Your task to perform on an android device: turn off smart reply in the gmail app Image 0: 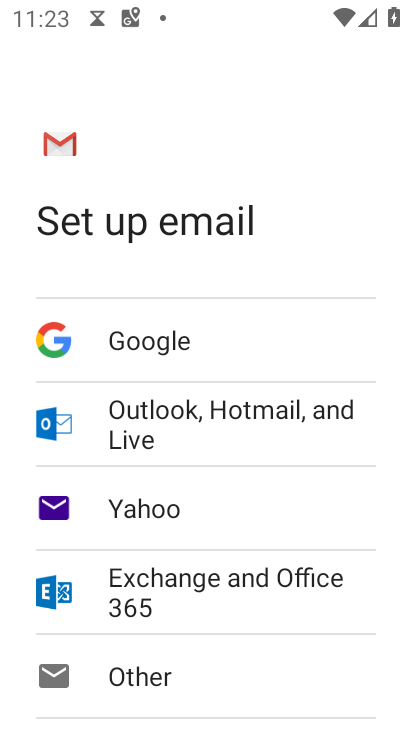
Step 0: press home button
Your task to perform on an android device: turn off smart reply in the gmail app Image 1: 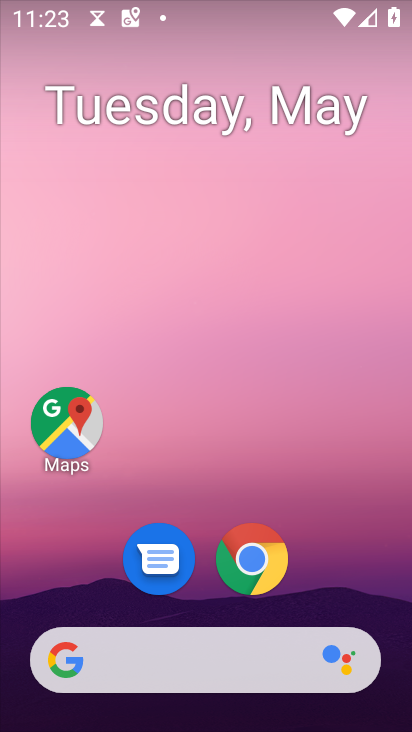
Step 1: drag from (363, 587) to (390, 83)
Your task to perform on an android device: turn off smart reply in the gmail app Image 2: 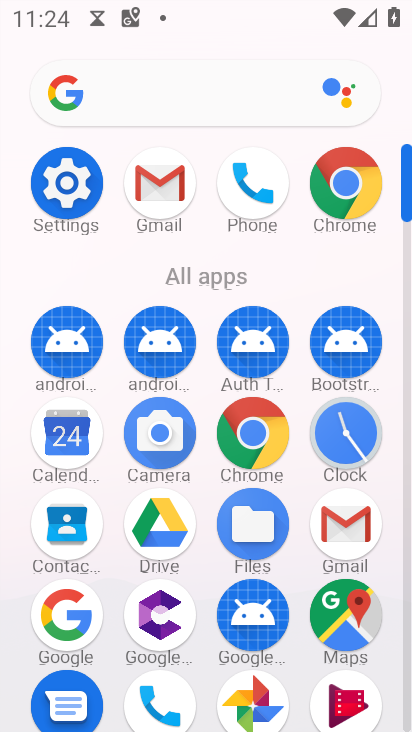
Step 2: click (158, 171)
Your task to perform on an android device: turn off smart reply in the gmail app Image 3: 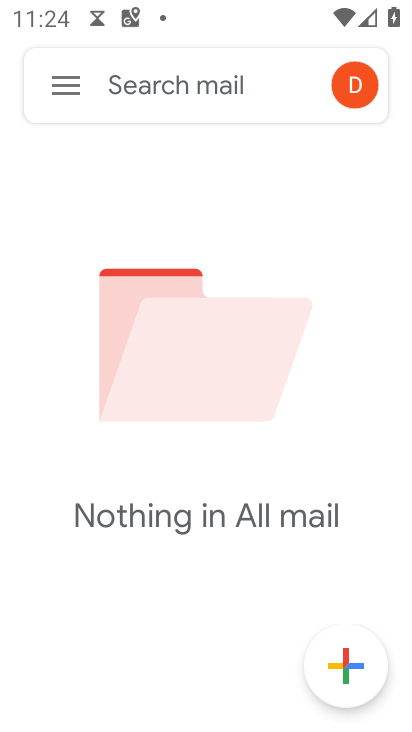
Step 3: click (72, 93)
Your task to perform on an android device: turn off smart reply in the gmail app Image 4: 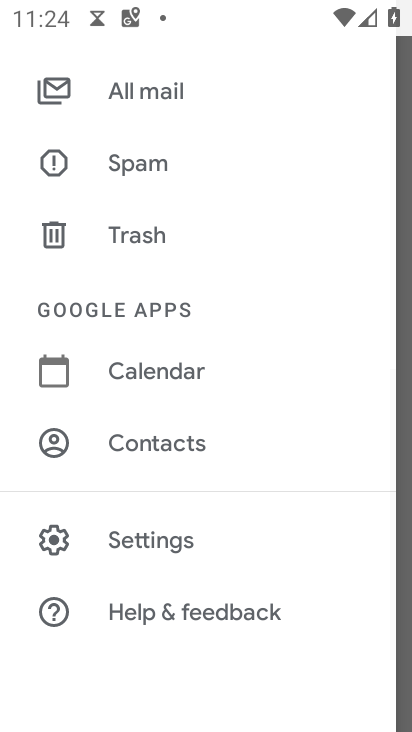
Step 4: click (180, 516)
Your task to perform on an android device: turn off smart reply in the gmail app Image 5: 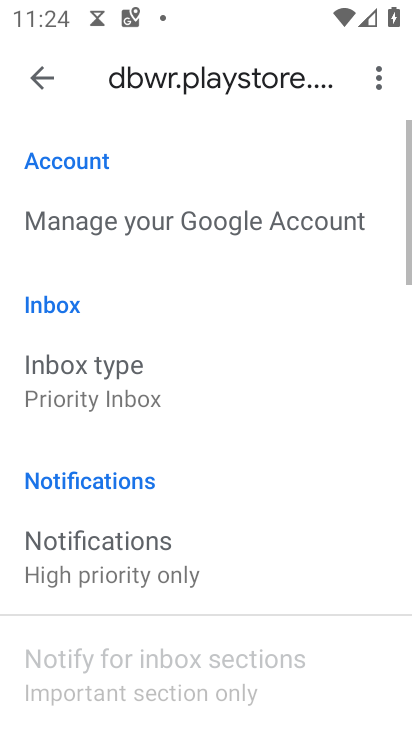
Step 5: drag from (220, 587) to (255, 256)
Your task to perform on an android device: turn off smart reply in the gmail app Image 6: 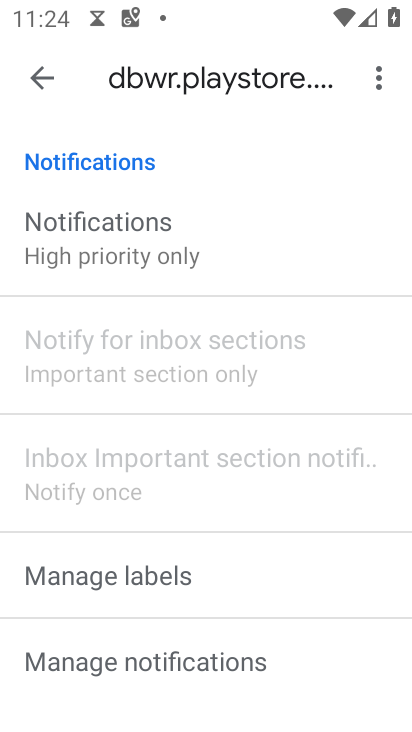
Step 6: drag from (289, 592) to (313, 155)
Your task to perform on an android device: turn off smart reply in the gmail app Image 7: 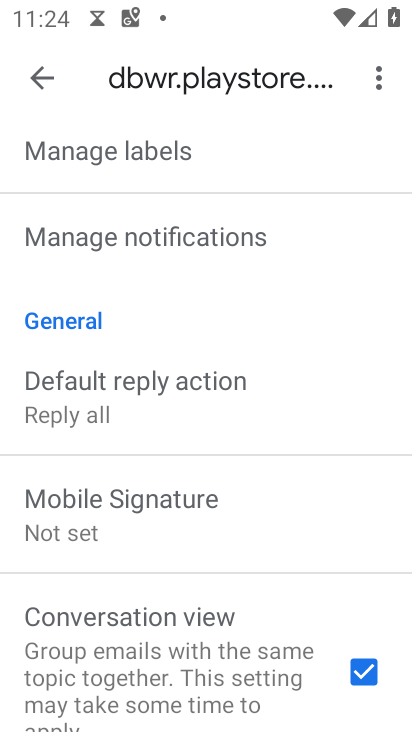
Step 7: drag from (275, 527) to (309, 106)
Your task to perform on an android device: turn off smart reply in the gmail app Image 8: 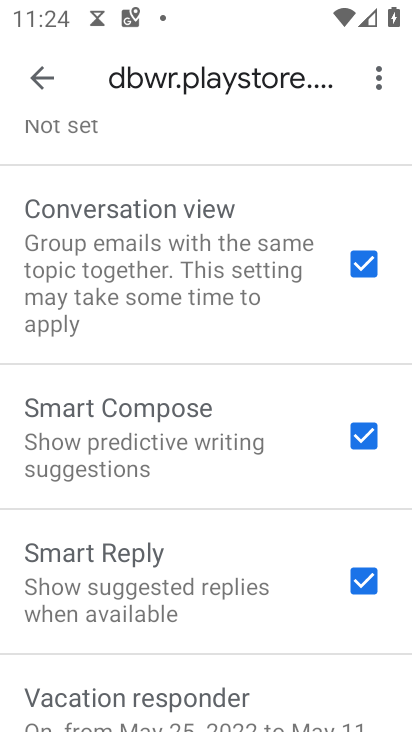
Step 8: click (369, 596)
Your task to perform on an android device: turn off smart reply in the gmail app Image 9: 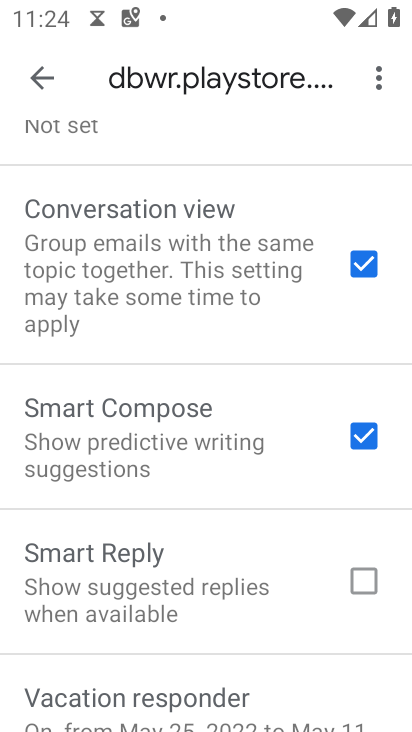
Step 9: task complete